Your task to perform on an android device: Show me popular games on the Play Store Image 0: 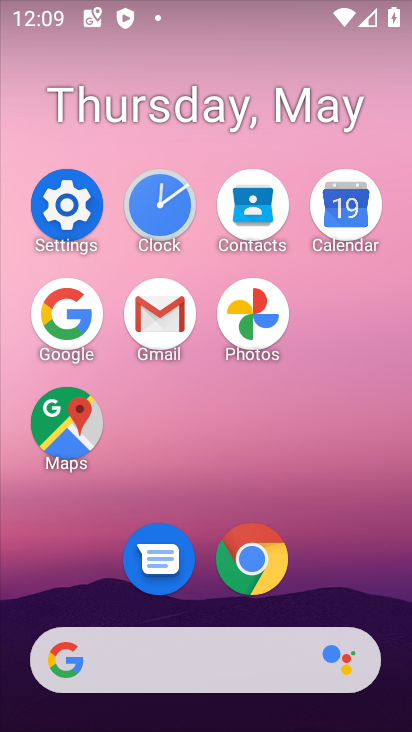
Step 0: drag from (336, 574) to (375, 223)
Your task to perform on an android device: Show me popular games on the Play Store Image 1: 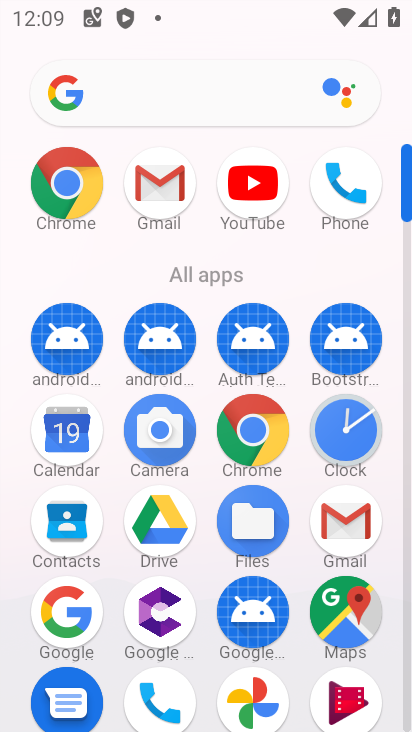
Step 1: drag from (211, 647) to (293, 288)
Your task to perform on an android device: Show me popular games on the Play Store Image 2: 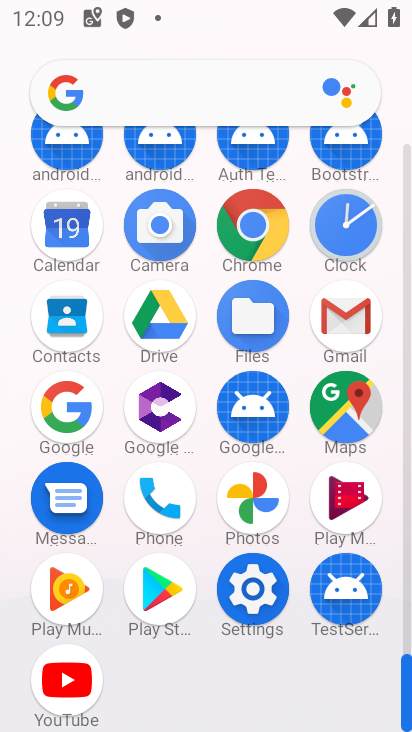
Step 2: click (149, 586)
Your task to perform on an android device: Show me popular games on the Play Store Image 3: 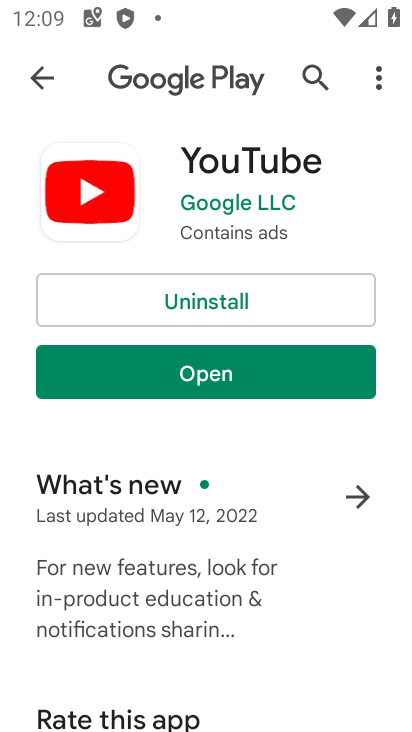
Step 3: click (45, 80)
Your task to perform on an android device: Show me popular games on the Play Store Image 4: 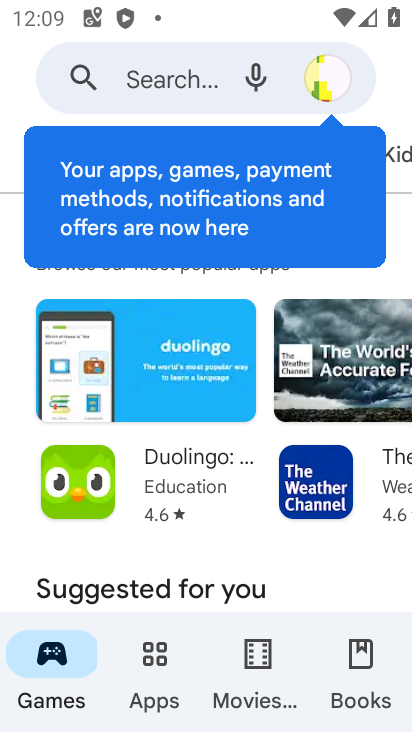
Step 4: drag from (399, 159) to (204, 153)
Your task to perform on an android device: Show me popular games on the Play Store Image 5: 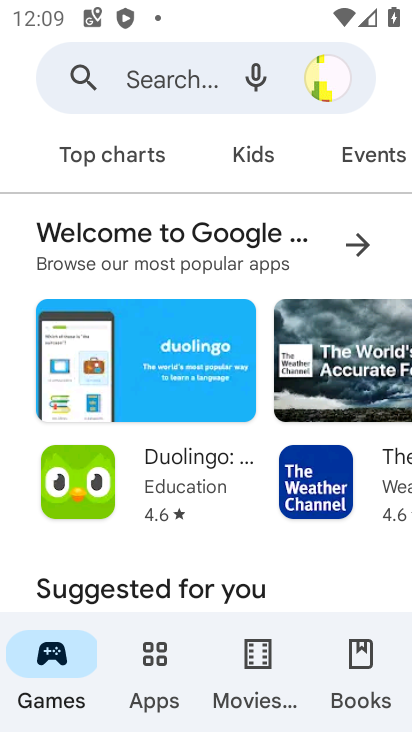
Step 5: drag from (386, 150) to (112, 166)
Your task to perform on an android device: Show me popular games on the Play Store Image 6: 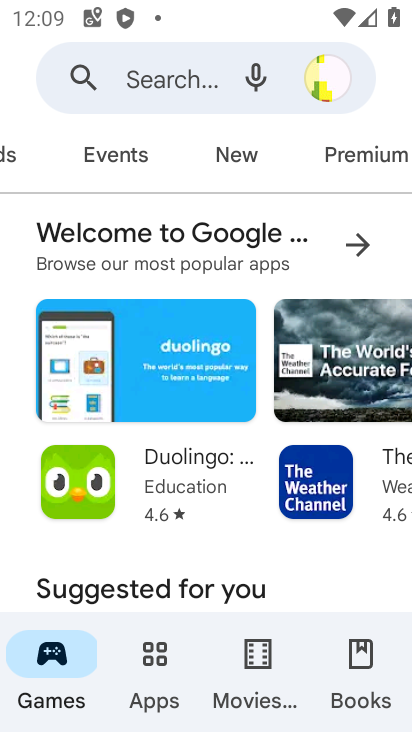
Step 6: drag from (194, 445) to (205, 161)
Your task to perform on an android device: Show me popular games on the Play Store Image 7: 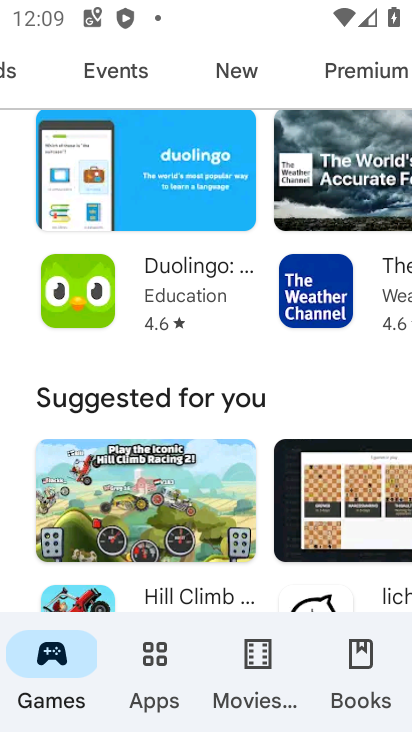
Step 7: drag from (197, 447) to (251, 152)
Your task to perform on an android device: Show me popular games on the Play Store Image 8: 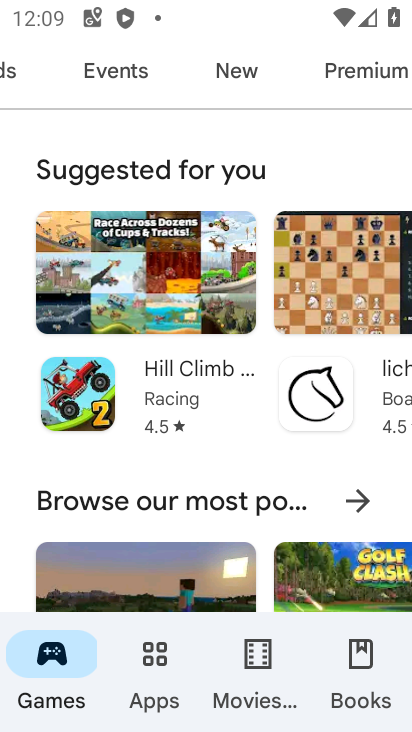
Step 8: drag from (194, 506) to (235, 197)
Your task to perform on an android device: Show me popular games on the Play Store Image 9: 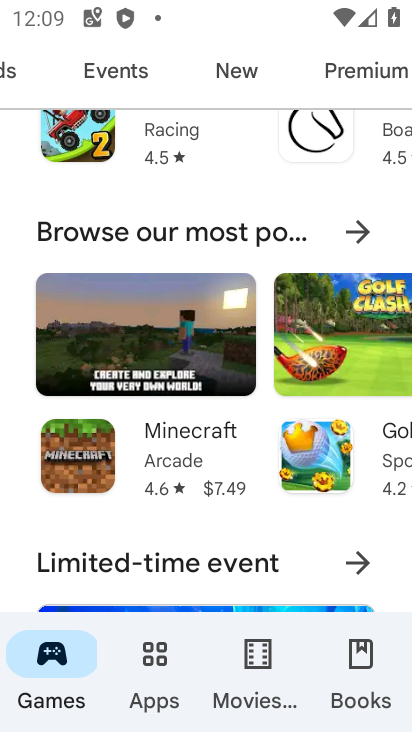
Step 9: click (298, 245)
Your task to perform on an android device: Show me popular games on the Play Store Image 10: 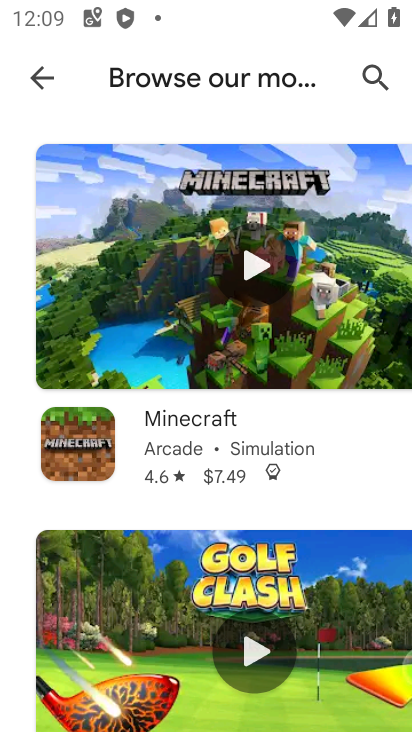
Step 10: task complete